Your task to perform on an android device: Open battery settings Image 0: 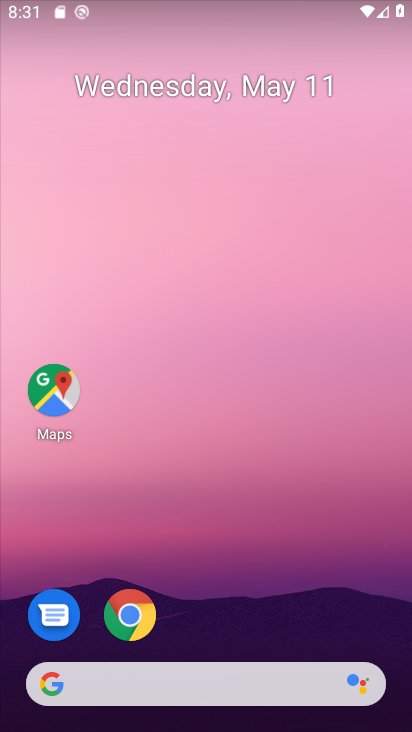
Step 0: drag from (316, 487) to (327, 69)
Your task to perform on an android device: Open battery settings Image 1: 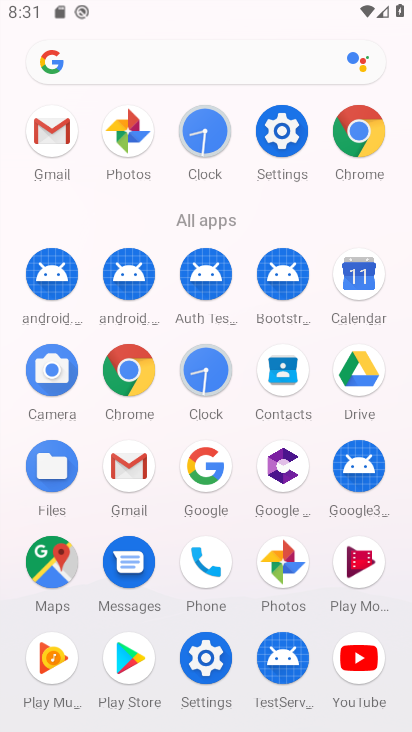
Step 1: click (287, 125)
Your task to perform on an android device: Open battery settings Image 2: 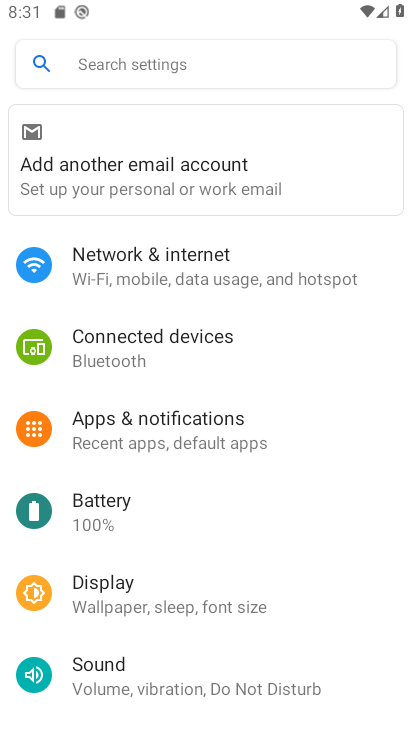
Step 2: click (176, 516)
Your task to perform on an android device: Open battery settings Image 3: 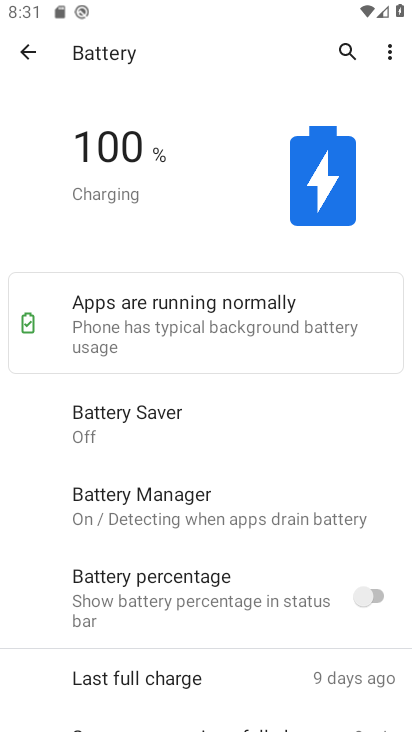
Step 3: task complete